Your task to perform on an android device: open a new tab in the chrome app Image 0: 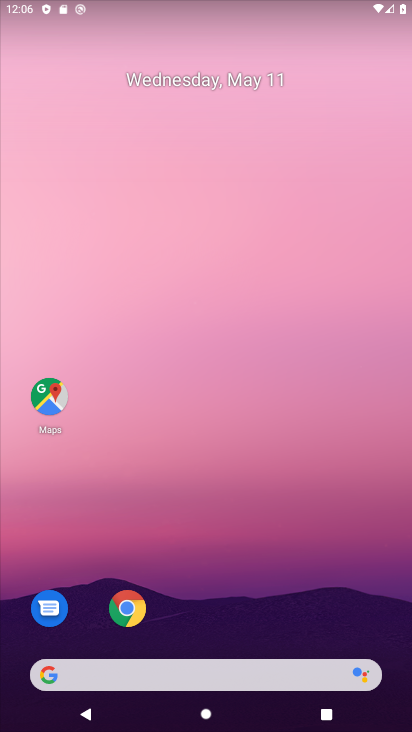
Step 0: click (123, 615)
Your task to perform on an android device: open a new tab in the chrome app Image 1: 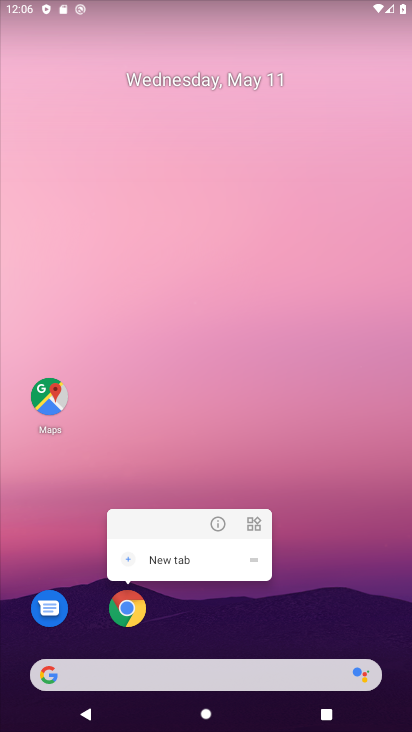
Step 1: click (123, 611)
Your task to perform on an android device: open a new tab in the chrome app Image 2: 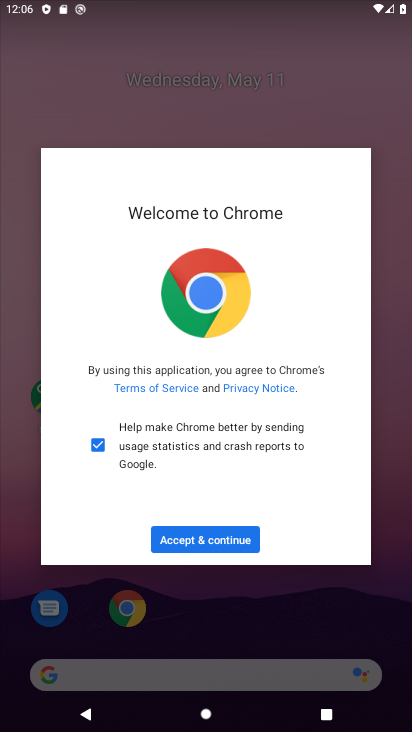
Step 2: click (236, 544)
Your task to perform on an android device: open a new tab in the chrome app Image 3: 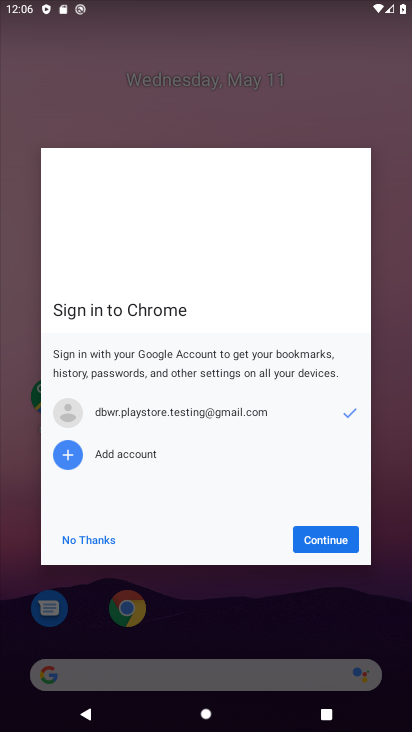
Step 3: click (336, 537)
Your task to perform on an android device: open a new tab in the chrome app Image 4: 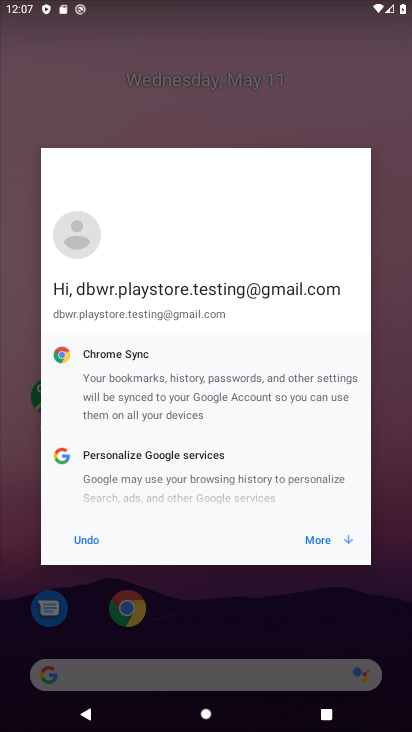
Step 4: click (322, 549)
Your task to perform on an android device: open a new tab in the chrome app Image 5: 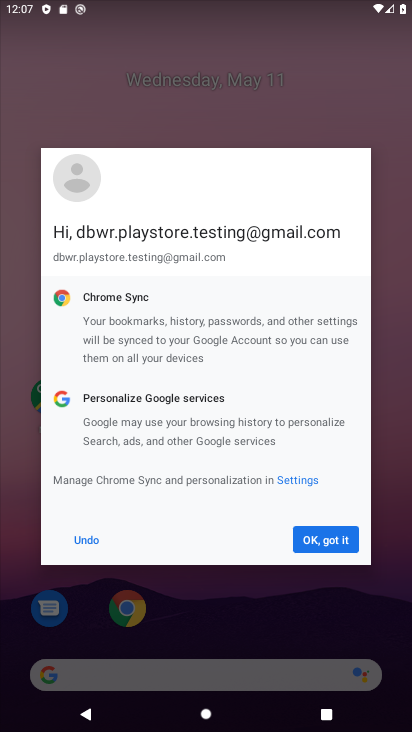
Step 5: click (306, 531)
Your task to perform on an android device: open a new tab in the chrome app Image 6: 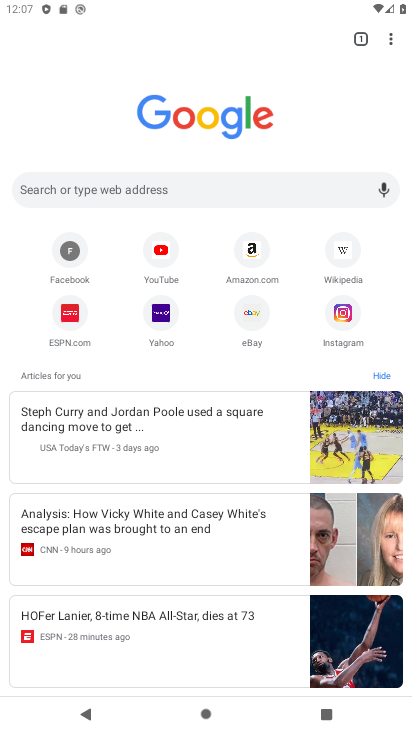
Step 6: task complete